Your task to perform on an android device: turn on bluetooth scan Image 0: 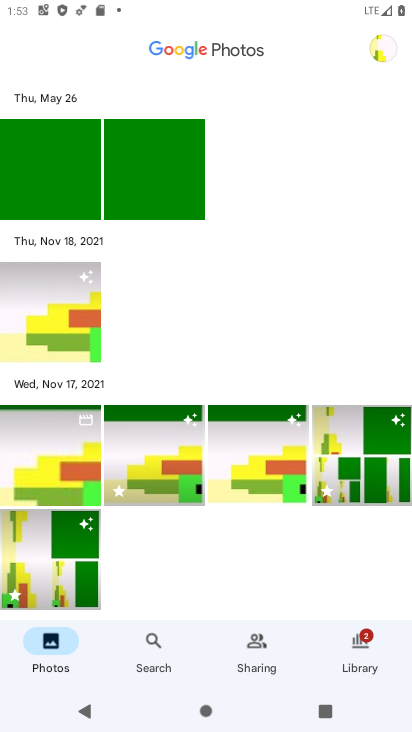
Step 0: press home button
Your task to perform on an android device: turn on bluetooth scan Image 1: 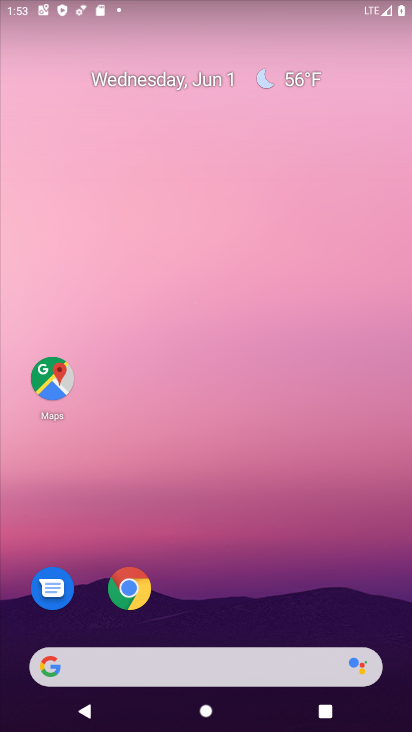
Step 1: drag from (248, 405) to (74, 0)
Your task to perform on an android device: turn on bluetooth scan Image 2: 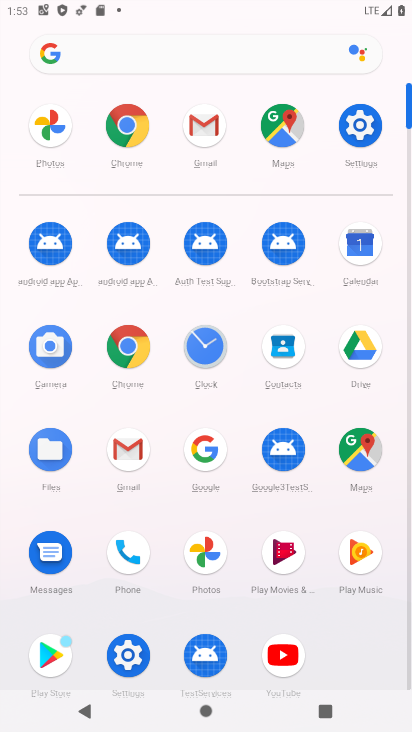
Step 2: click (366, 107)
Your task to perform on an android device: turn on bluetooth scan Image 3: 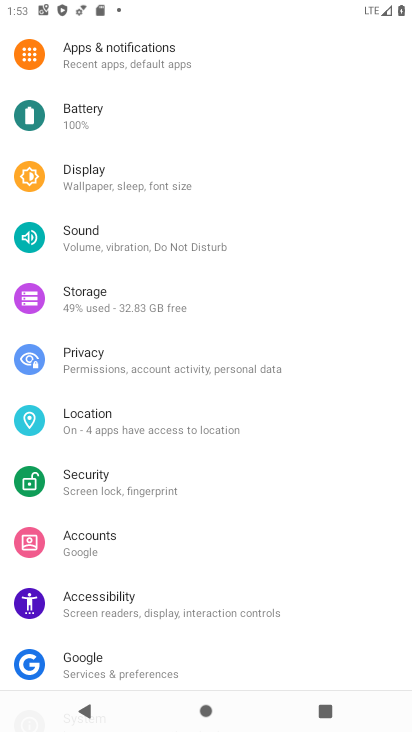
Step 3: click (101, 408)
Your task to perform on an android device: turn on bluetooth scan Image 4: 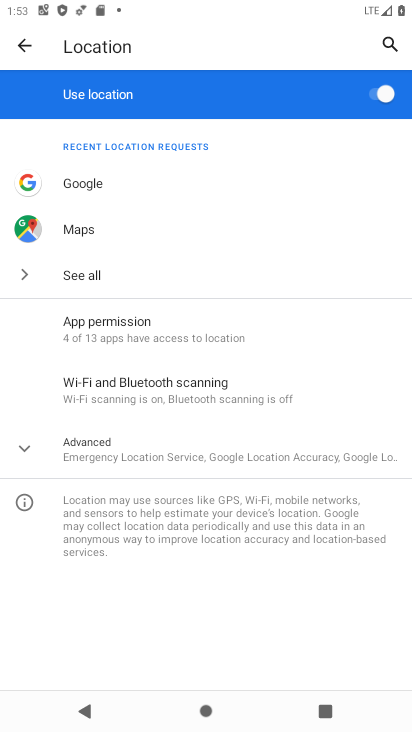
Step 4: click (211, 398)
Your task to perform on an android device: turn on bluetooth scan Image 5: 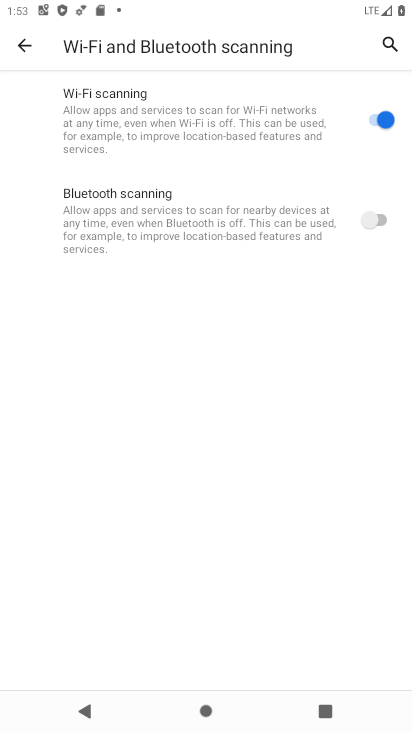
Step 5: click (374, 209)
Your task to perform on an android device: turn on bluetooth scan Image 6: 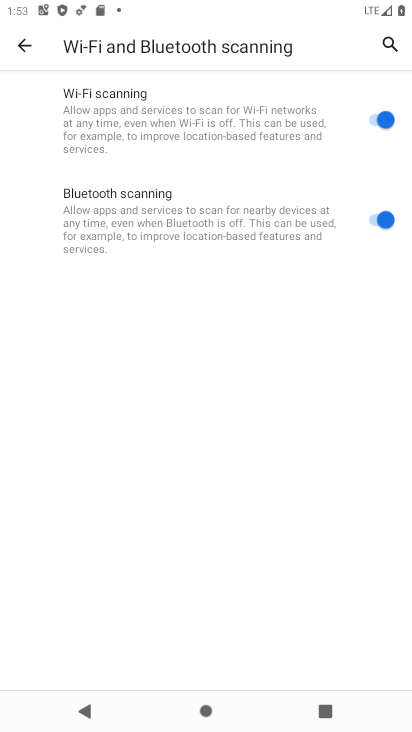
Step 6: task complete